Your task to perform on an android device: Open the stopwatch Image 0: 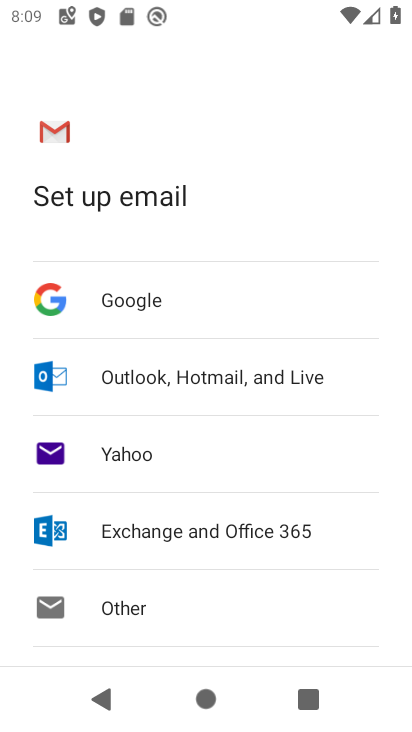
Step 0: press home button
Your task to perform on an android device: Open the stopwatch Image 1: 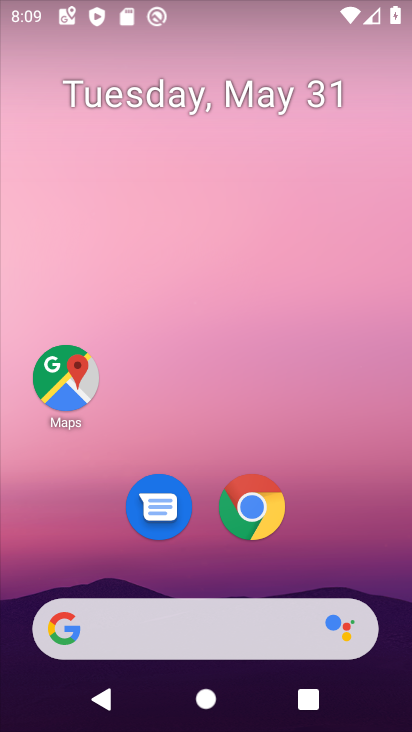
Step 1: drag from (365, 526) to (296, 173)
Your task to perform on an android device: Open the stopwatch Image 2: 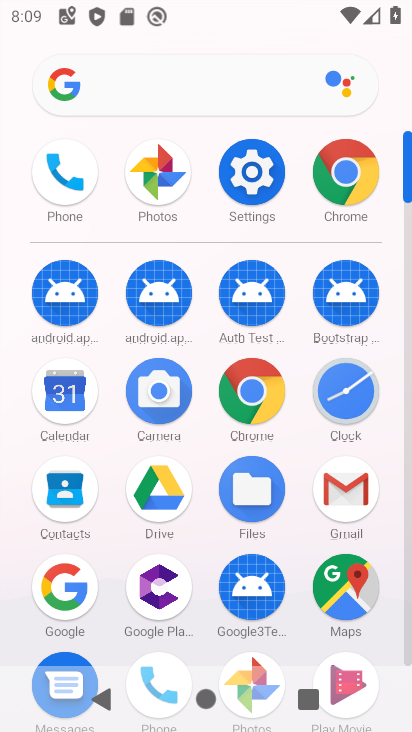
Step 2: click (346, 395)
Your task to perform on an android device: Open the stopwatch Image 3: 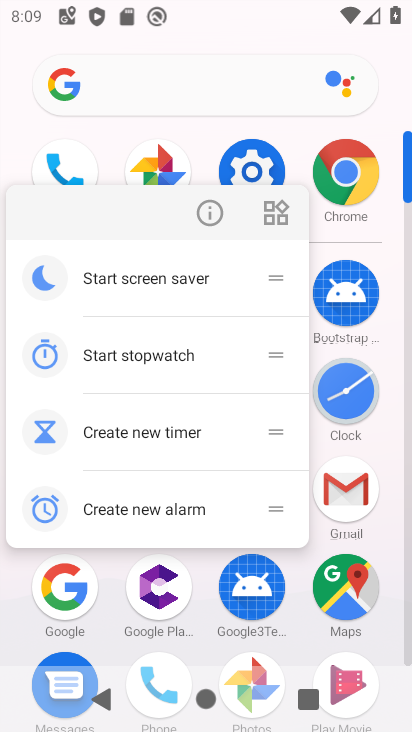
Step 3: click (356, 387)
Your task to perform on an android device: Open the stopwatch Image 4: 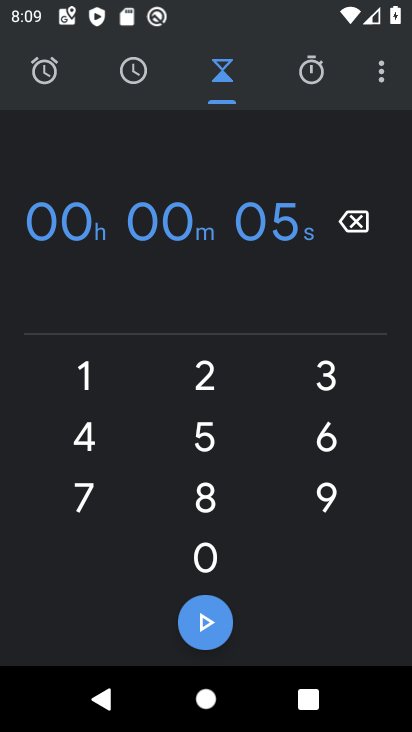
Step 4: click (331, 76)
Your task to perform on an android device: Open the stopwatch Image 5: 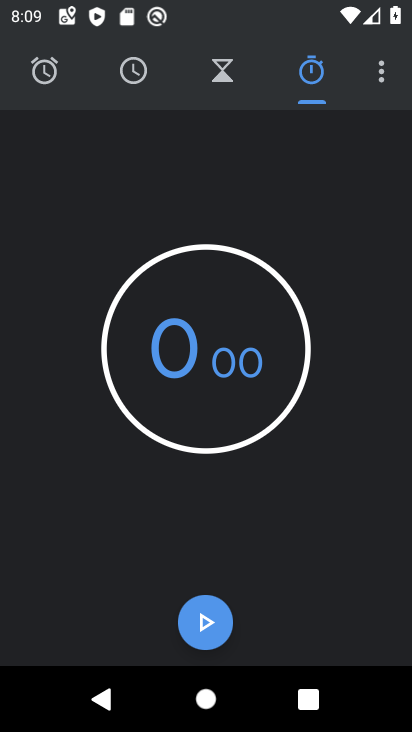
Step 5: task complete